Your task to perform on an android device: What's the weather? Image 0: 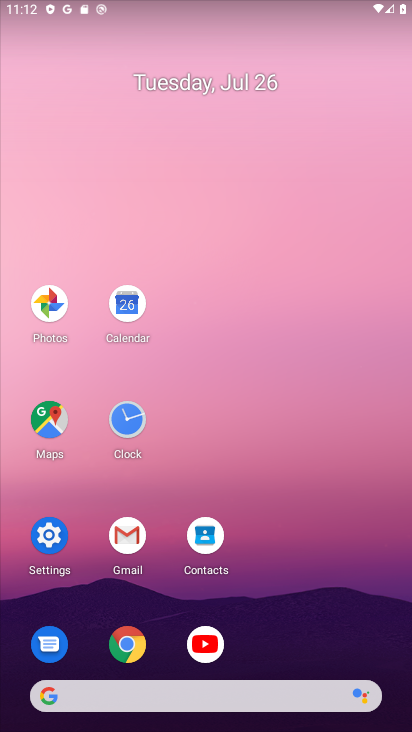
Step 0: click (225, 684)
Your task to perform on an android device: What's the weather? Image 1: 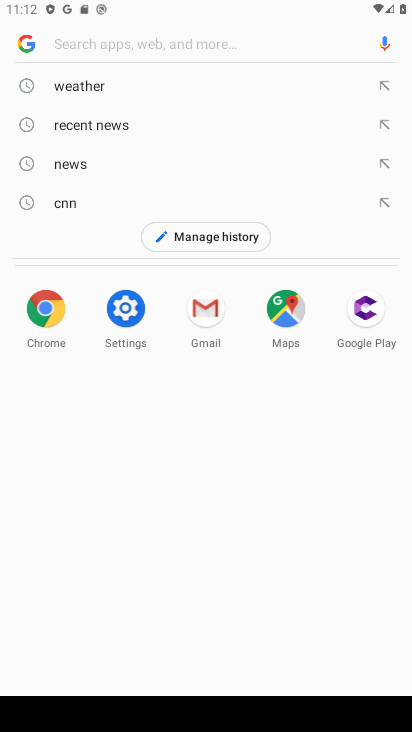
Step 1: click (87, 85)
Your task to perform on an android device: What's the weather? Image 2: 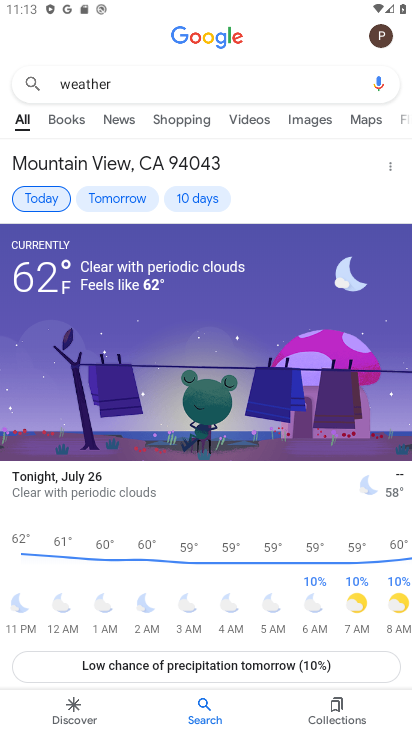
Step 2: task complete